Your task to perform on an android device: turn off notifications in google photos Image 0: 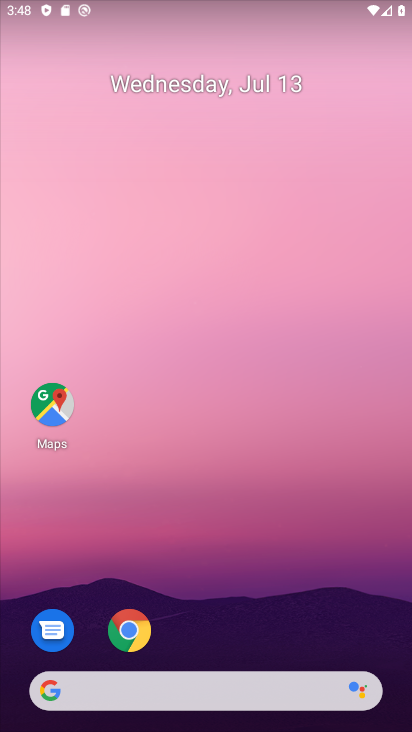
Step 0: drag from (203, 638) to (303, 73)
Your task to perform on an android device: turn off notifications in google photos Image 1: 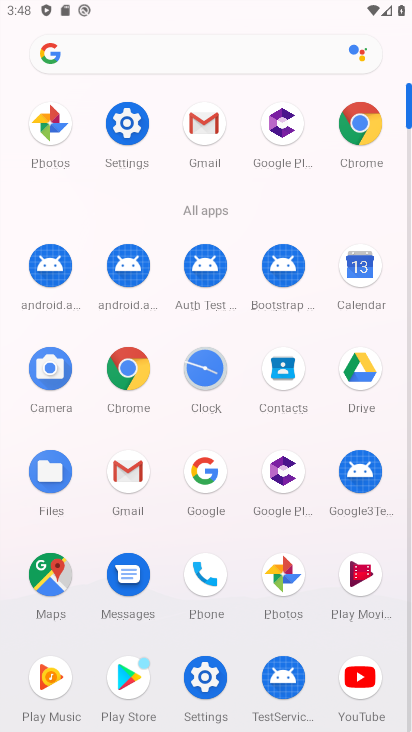
Step 1: click (278, 568)
Your task to perform on an android device: turn off notifications in google photos Image 2: 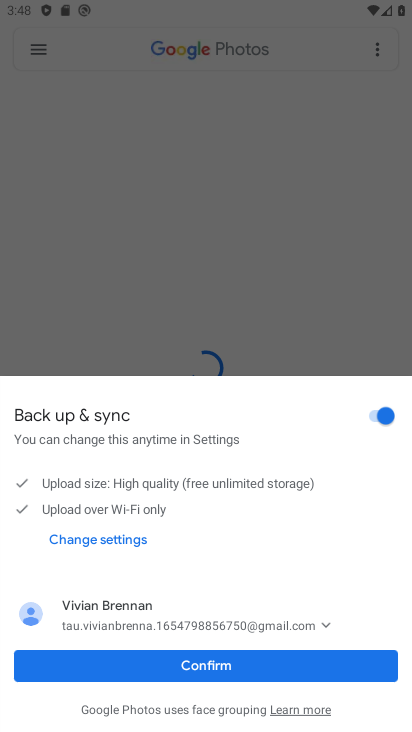
Step 2: click (141, 665)
Your task to perform on an android device: turn off notifications in google photos Image 3: 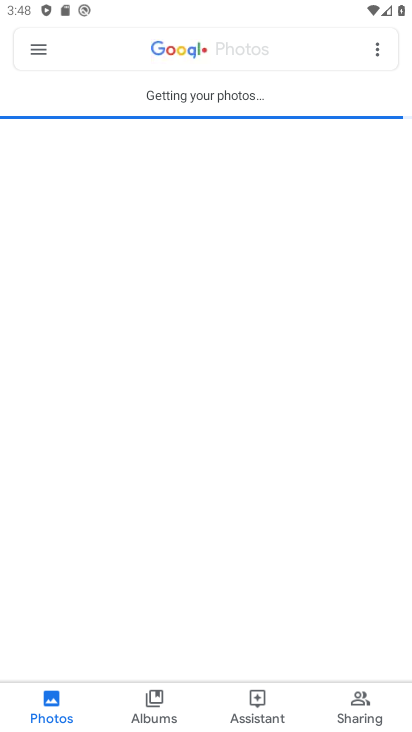
Step 3: click (46, 53)
Your task to perform on an android device: turn off notifications in google photos Image 4: 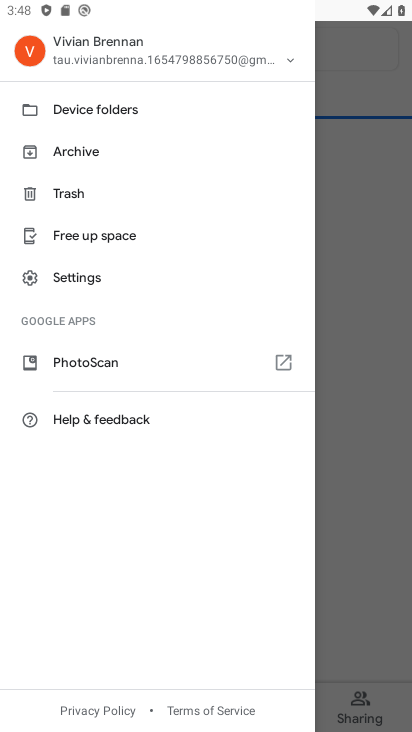
Step 4: click (115, 272)
Your task to perform on an android device: turn off notifications in google photos Image 5: 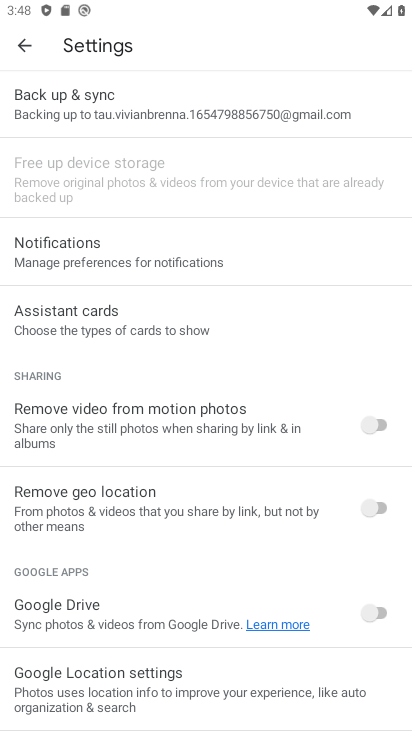
Step 5: click (115, 272)
Your task to perform on an android device: turn off notifications in google photos Image 6: 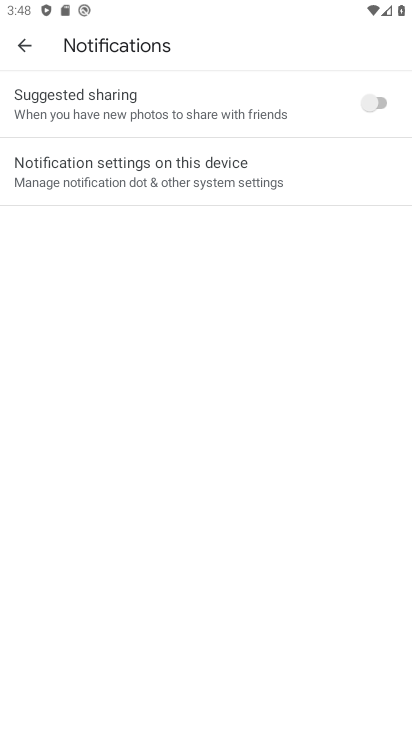
Step 6: click (185, 190)
Your task to perform on an android device: turn off notifications in google photos Image 7: 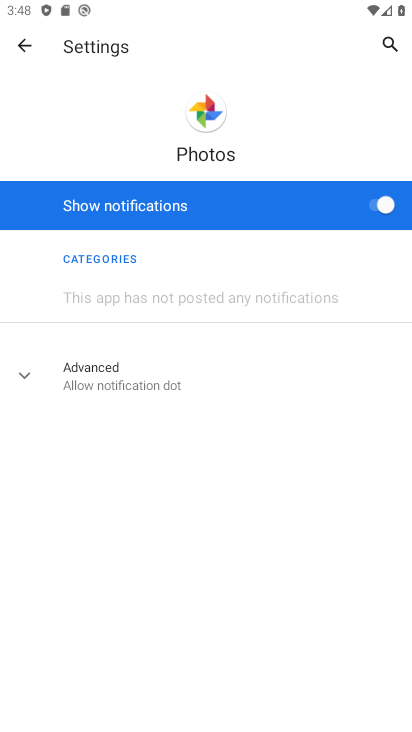
Step 7: click (384, 207)
Your task to perform on an android device: turn off notifications in google photos Image 8: 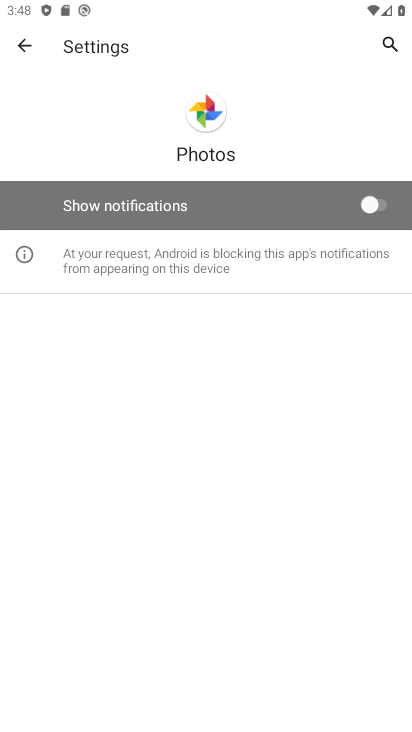
Step 8: task complete